Your task to perform on an android device: find photos in the google photos app Image 0: 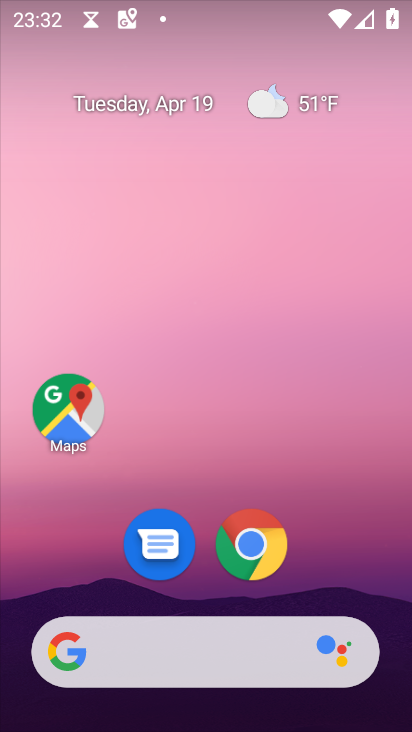
Step 0: drag from (350, 588) to (297, 250)
Your task to perform on an android device: find photos in the google photos app Image 1: 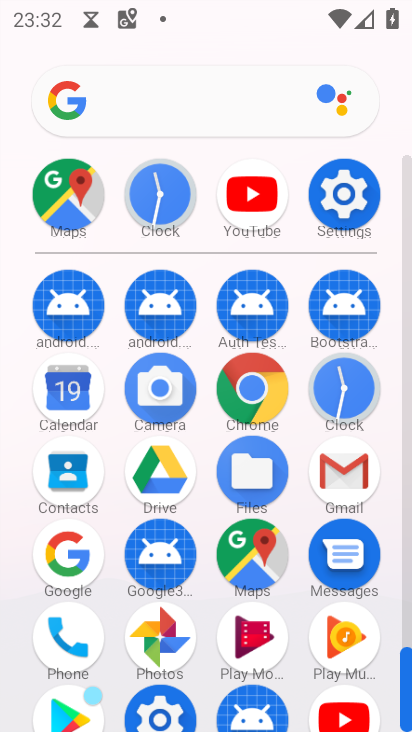
Step 1: click (157, 634)
Your task to perform on an android device: find photos in the google photos app Image 2: 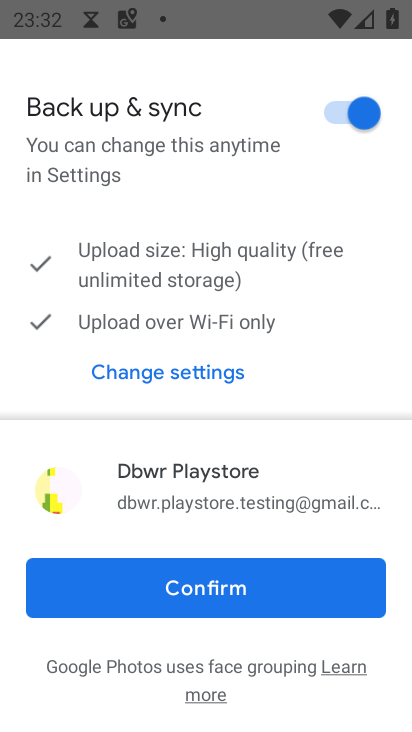
Step 2: click (204, 584)
Your task to perform on an android device: find photos in the google photos app Image 3: 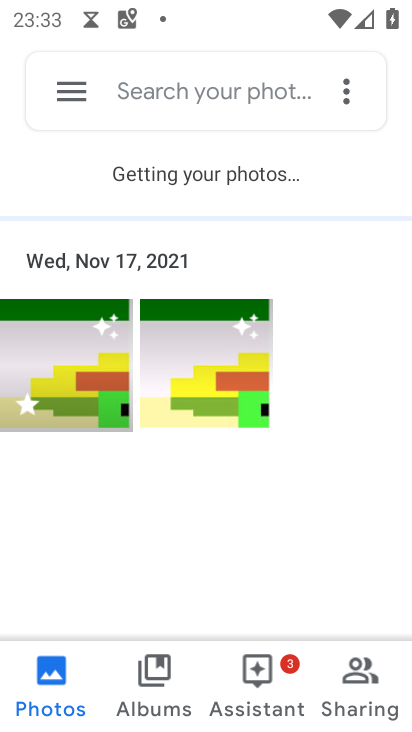
Step 3: task complete